Your task to perform on an android device: Go to ESPN.com Image 0: 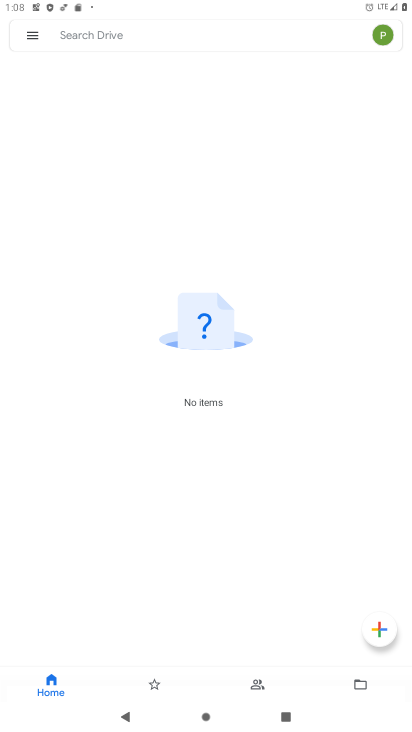
Step 0: press home button
Your task to perform on an android device: Go to ESPN.com Image 1: 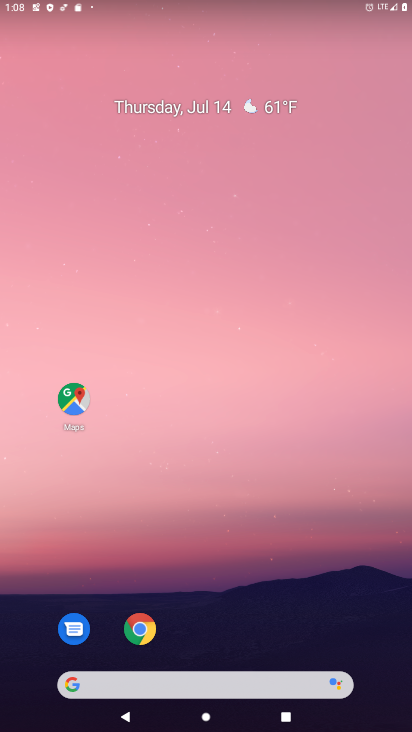
Step 1: click (142, 636)
Your task to perform on an android device: Go to ESPN.com Image 2: 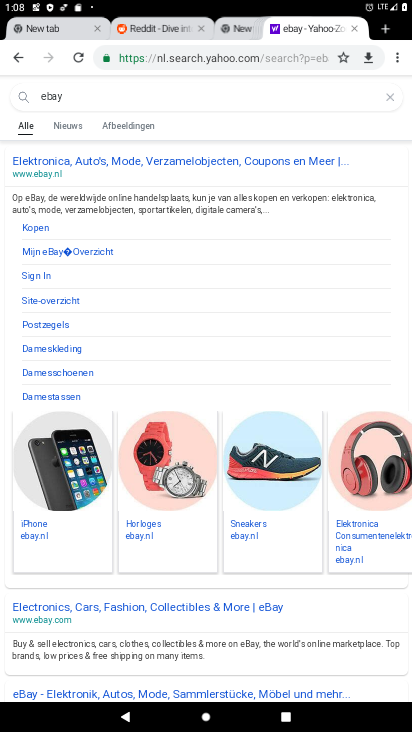
Step 2: click (400, 58)
Your task to perform on an android device: Go to ESPN.com Image 3: 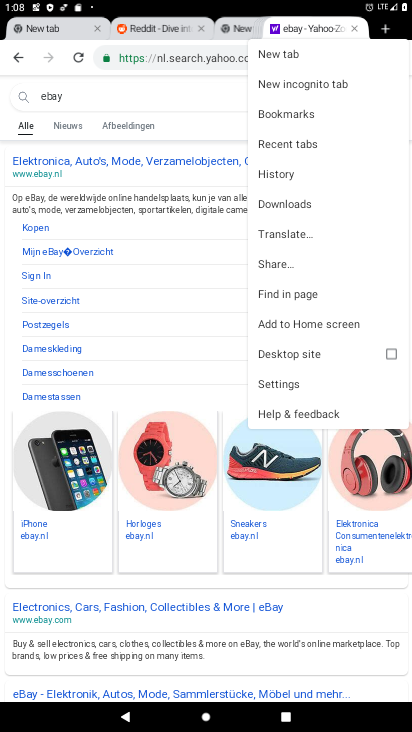
Step 3: click (285, 55)
Your task to perform on an android device: Go to ESPN.com Image 4: 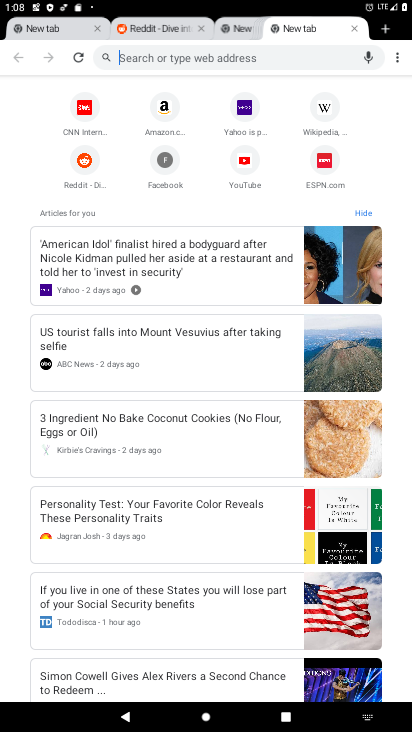
Step 4: click (325, 155)
Your task to perform on an android device: Go to ESPN.com Image 5: 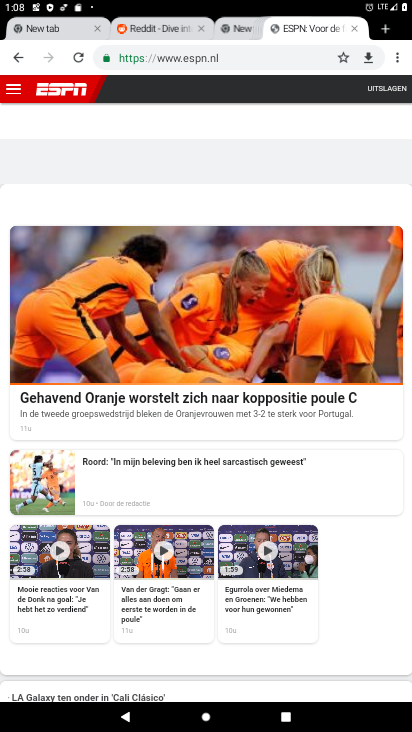
Step 5: task complete